Your task to perform on an android device: Open display settings Image 0: 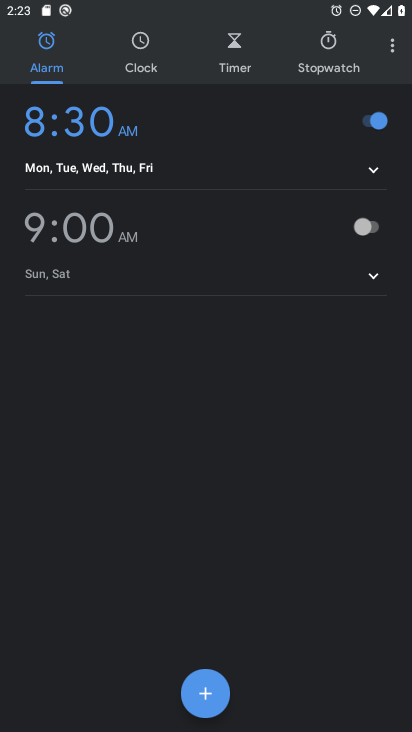
Step 0: press home button
Your task to perform on an android device: Open display settings Image 1: 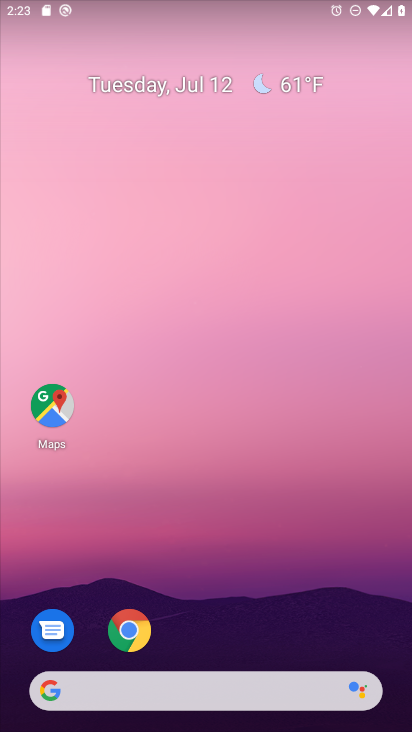
Step 1: drag from (187, 639) to (248, 157)
Your task to perform on an android device: Open display settings Image 2: 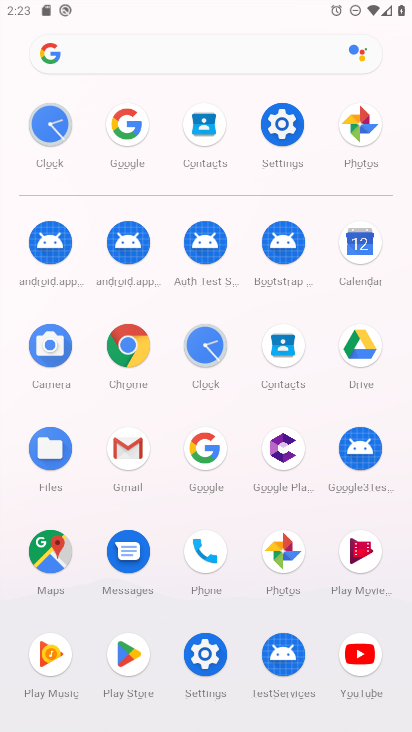
Step 2: click (286, 141)
Your task to perform on an android device: Open display settings Image 3: 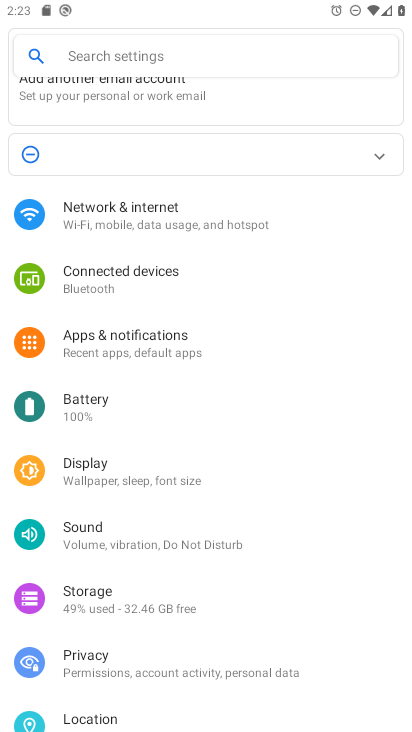
Step 3: click (114, 472)
Your task to perform on an android device: Open display settings Image 4: 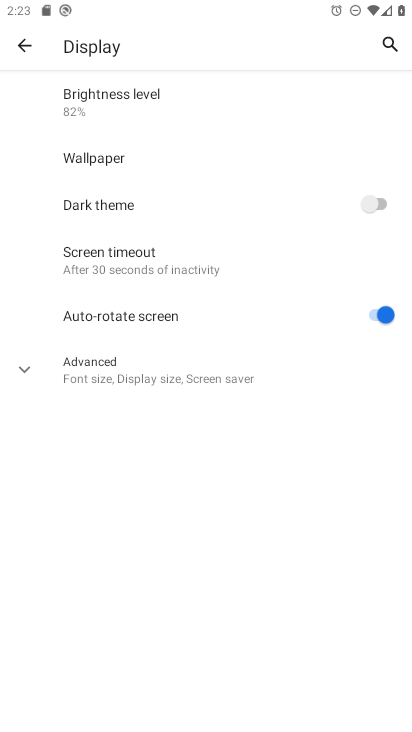
Step 4: task complete